Your task to perform on an android device: install app "Google Sheets" Image 0: 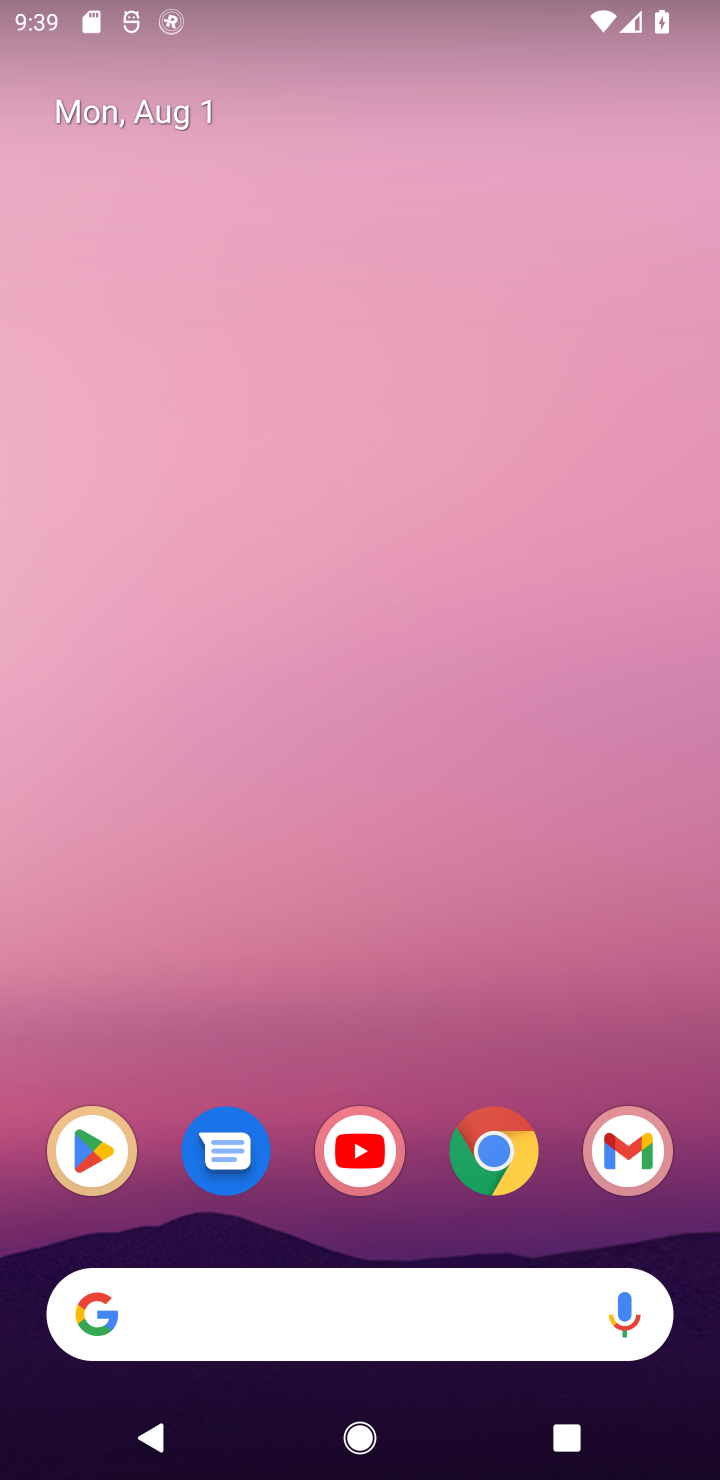
Step 0: click (95, 1164)
Your task to perform on an android device: install app "Google Sheets" Image 1: 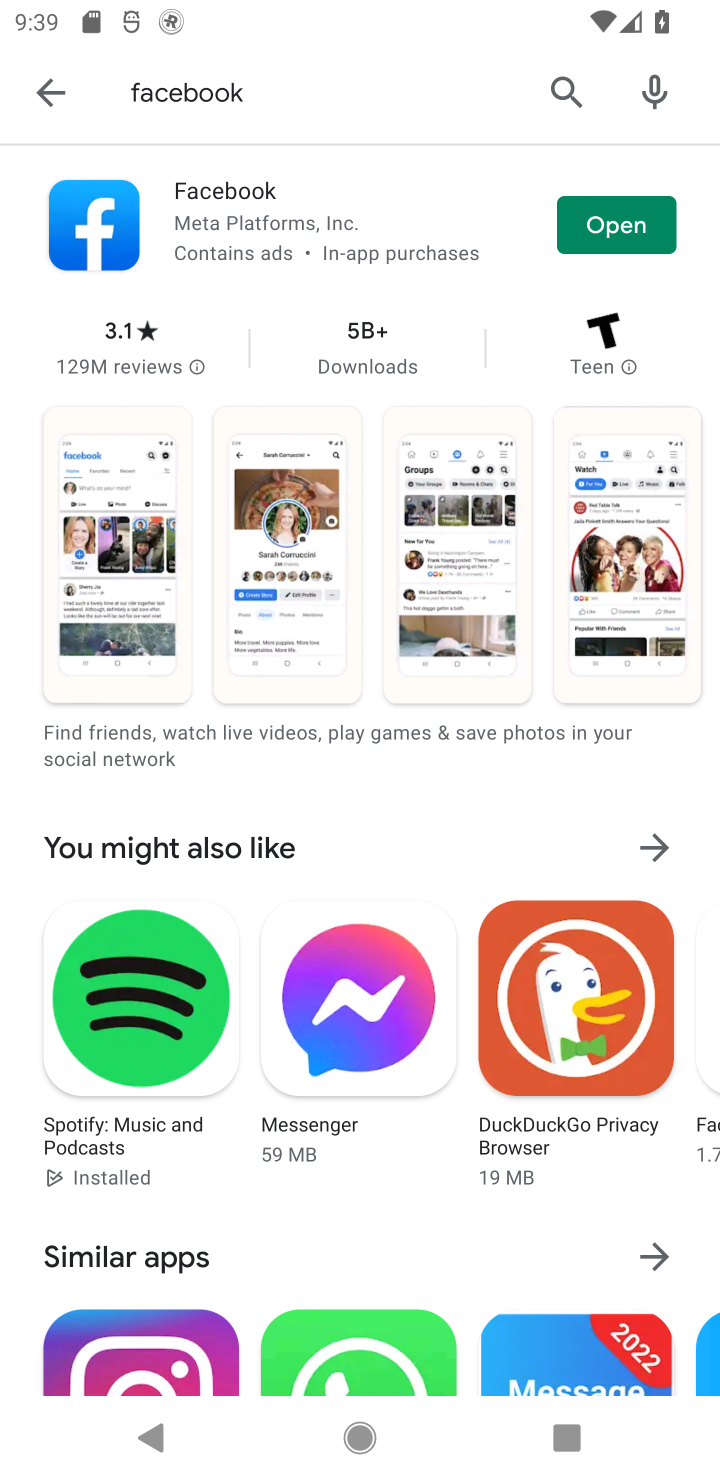
Step 1: click (568, 106)
Your task to perform on an android device: install app "Google Sheets" Image 2: 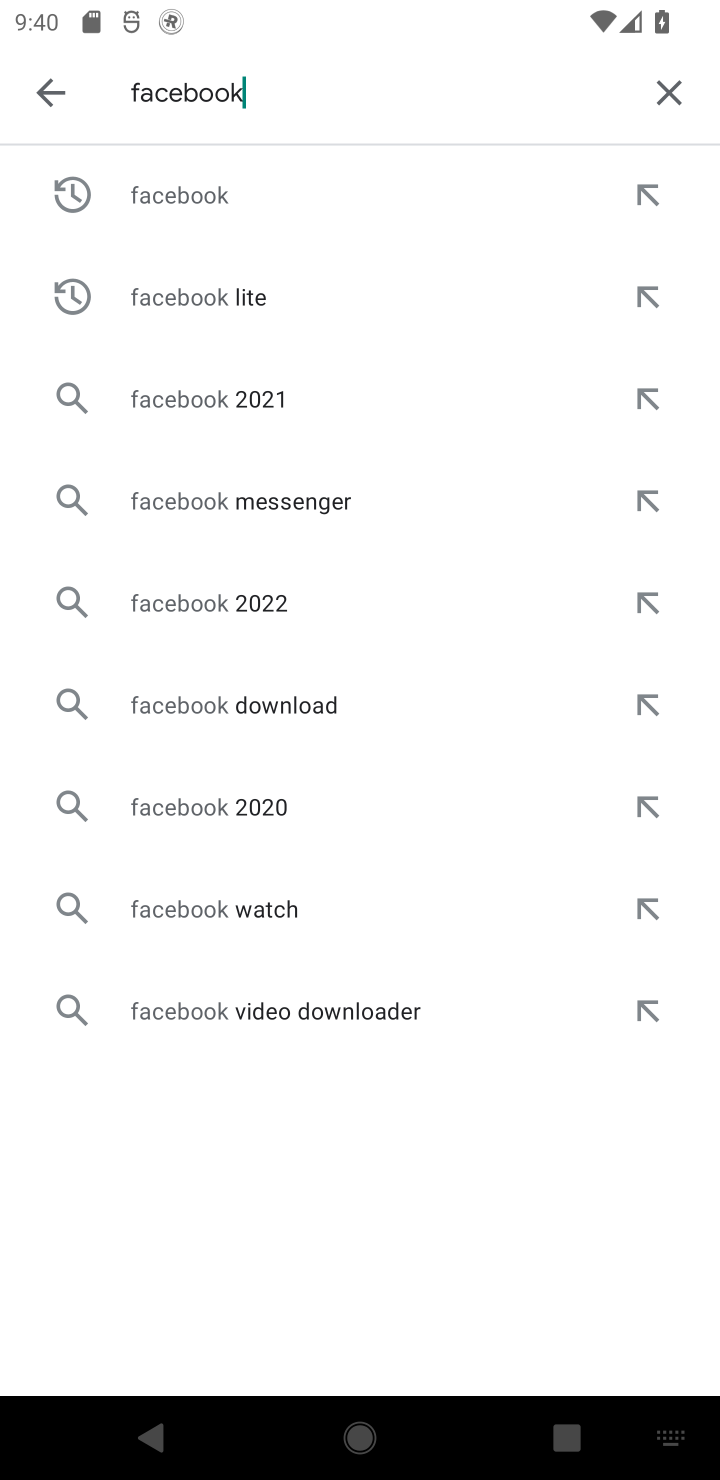
Step 2: click (674, 101)
Your task to perform on an android device: install app "Google Sheets" Image 3: 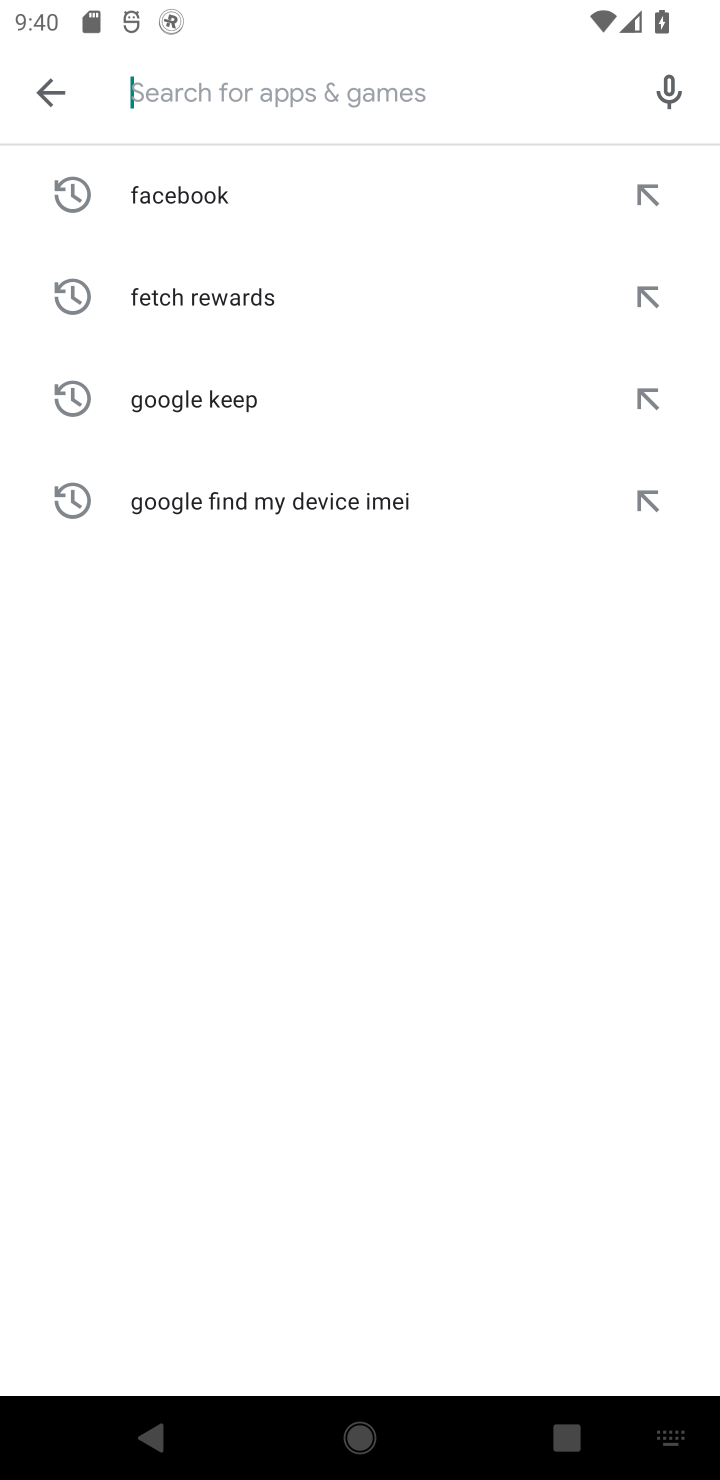
Step 3: type "Google Sheets"
Your task to perform on an android device: install app "Google Sheets" Image 4: 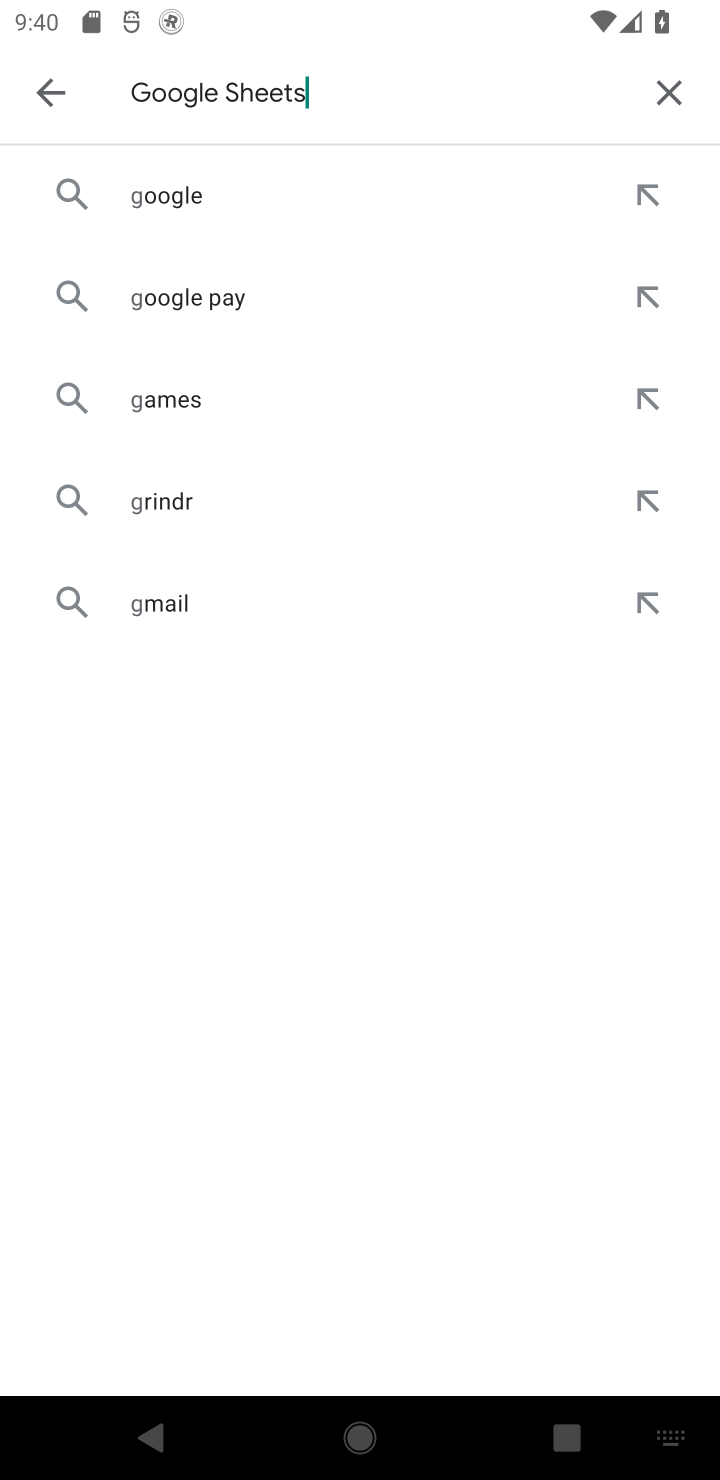
Step 4: type ""
Your task to perform on an android device: install app "Google Sheets" Image 5: 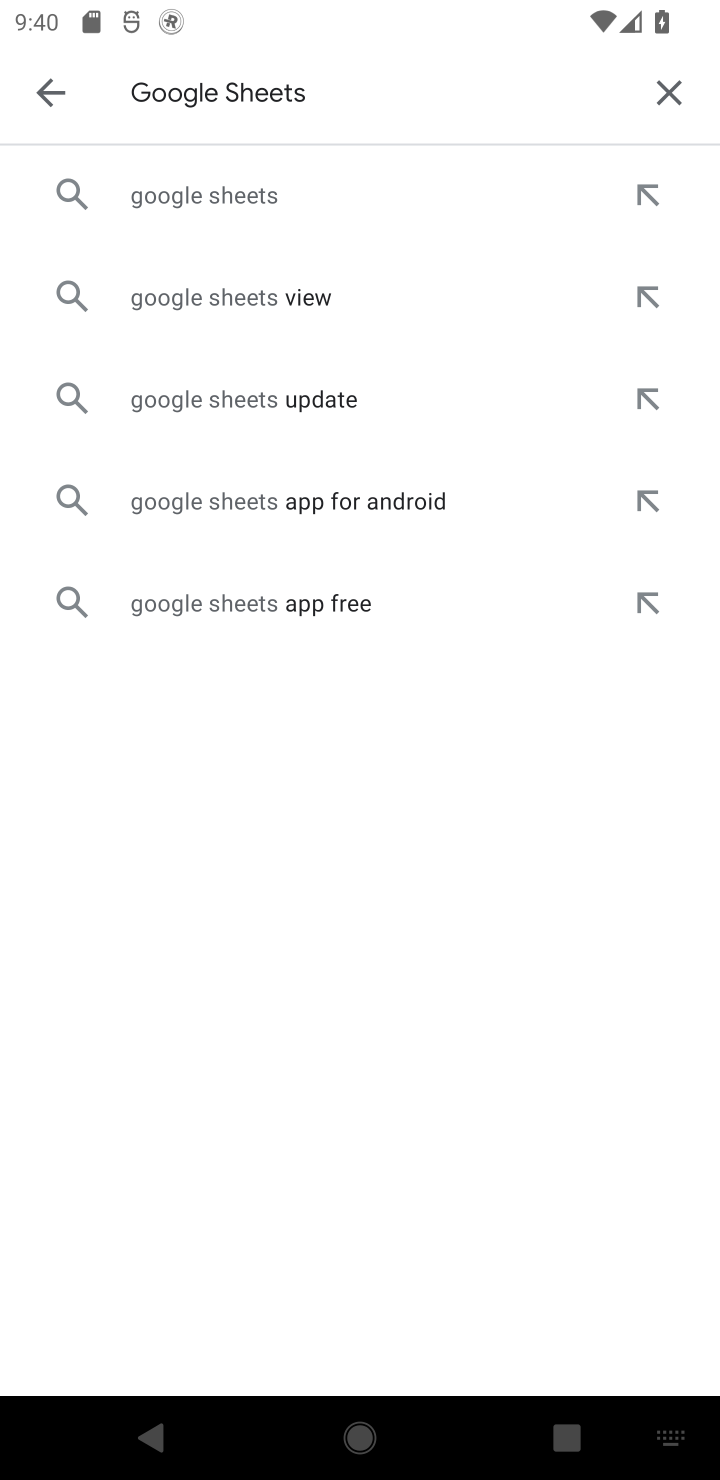
Step 5: click (277, 199)
Your task to perform on an android device: install app "Google Sheets" Image 6: 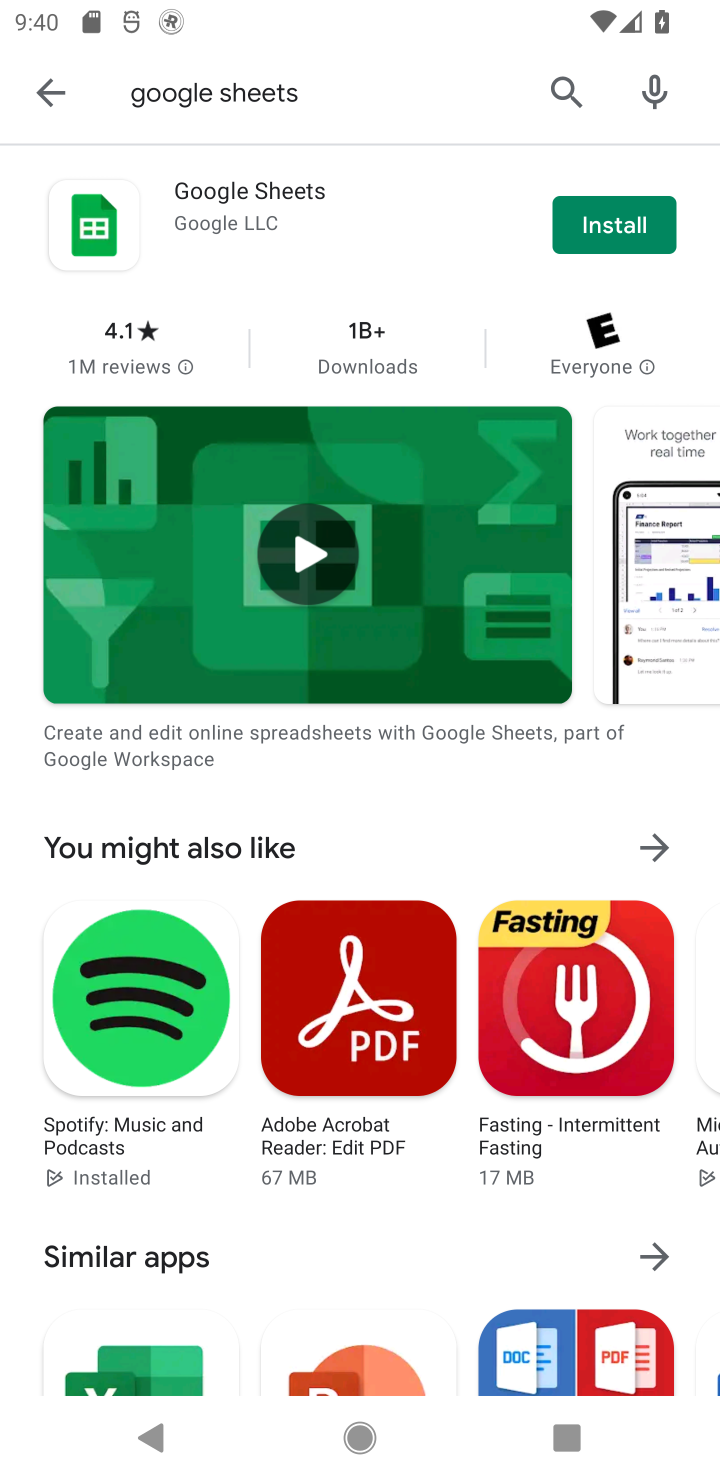
Step 6: click (632, 234)
Your task to perform on an android device: install app "Google Sheets" Image 7: 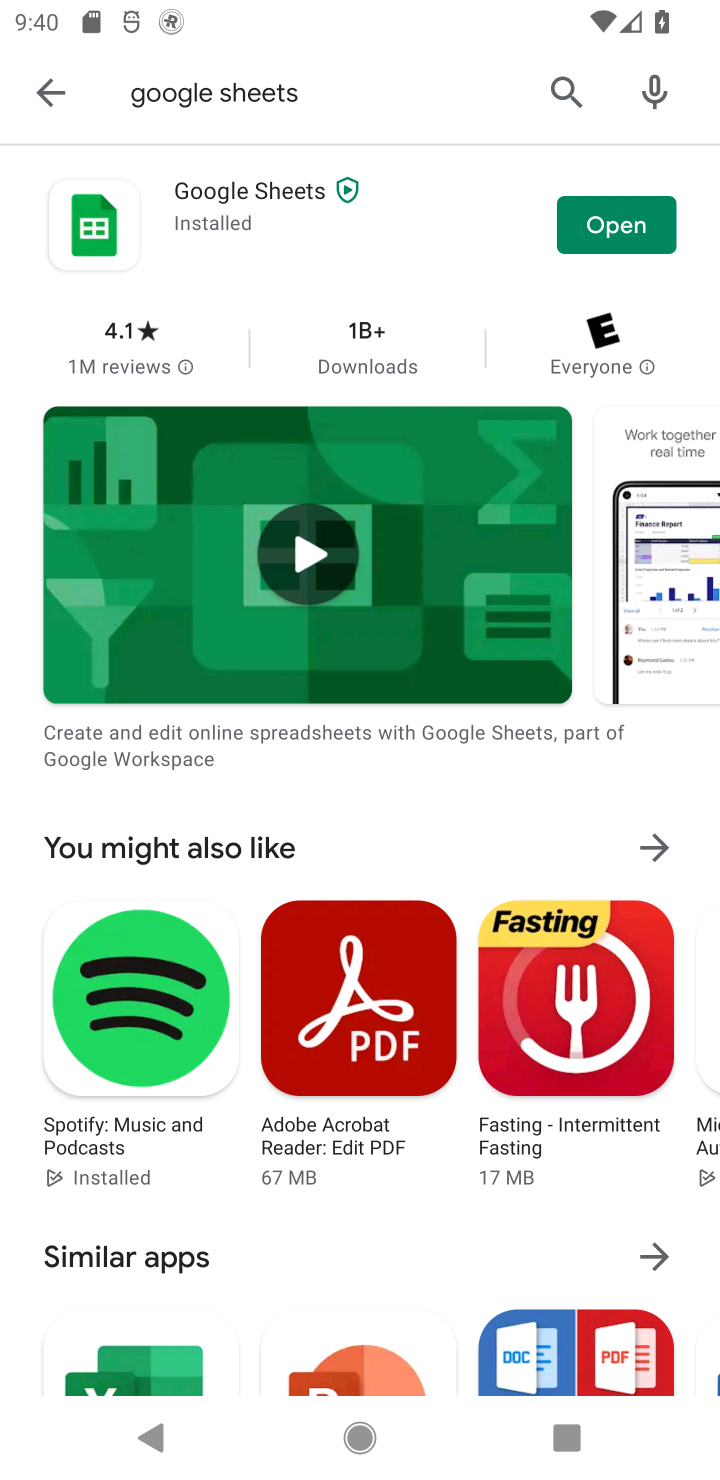
Step 7: task complete